Your task to perform on an android device: change timer sound Image 0: 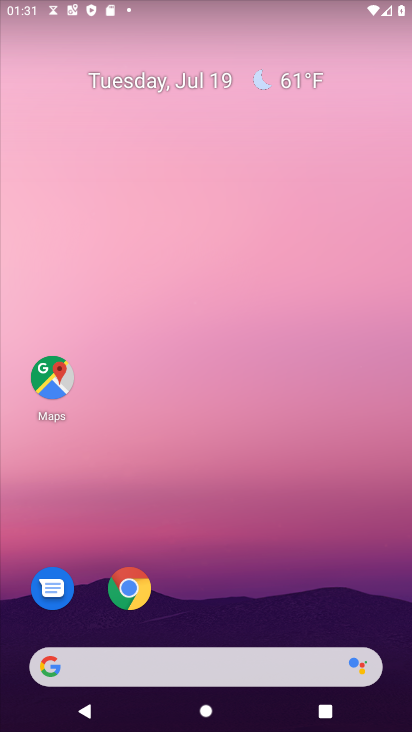
Step 0: press home button
Your task to perform on an android device: change timer sound Image 1: 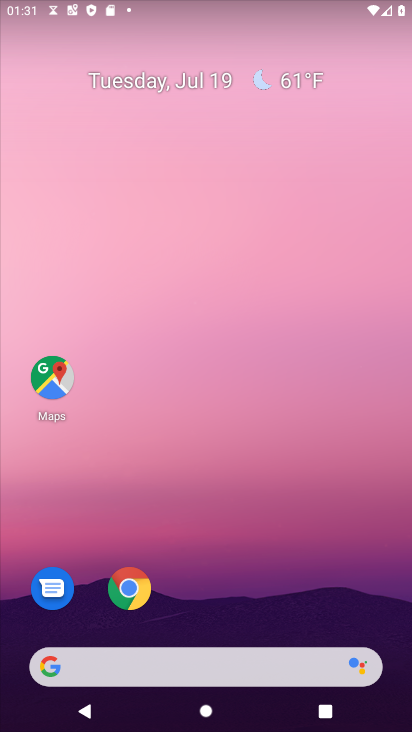
Step 1: drag from (299, 639) to (300, 0)
Your task to perform on an android device: change timer sound Image 2: 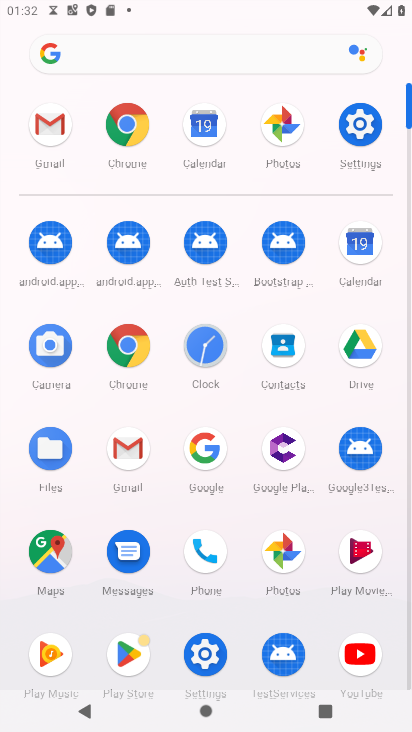
Step 2: click (205, 361)
Your task to perform on an android device: change timer sound Image 3: 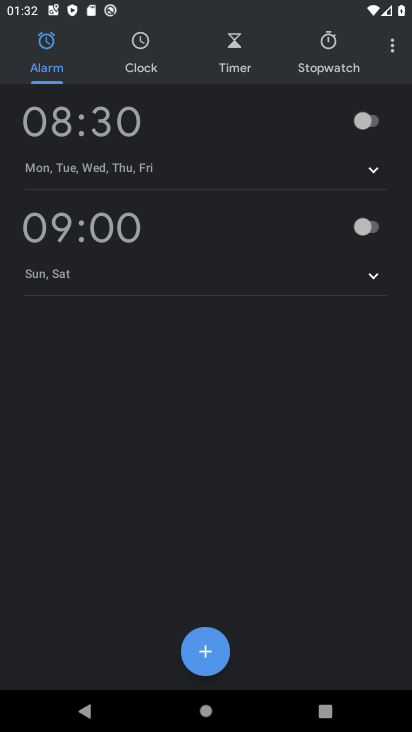
Step 3: click (390, 55)
Your task to perform on an android device: change timer sound Image 4: 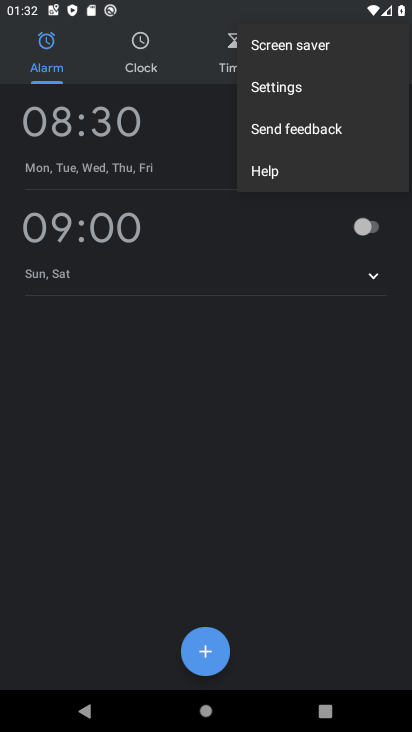
Step 4: click (269, 95)
Your task to perform on an android device: change timer sound Image 5: 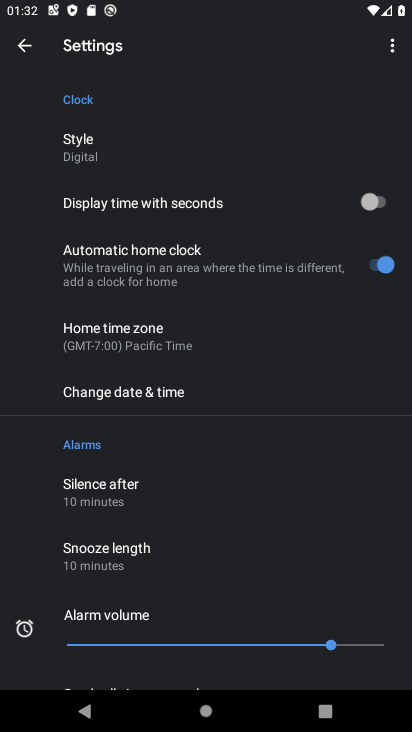
Step 5: drag from (162, 568) to (207, 272)
Your task to perform on an android device: change timer sound Image 6: 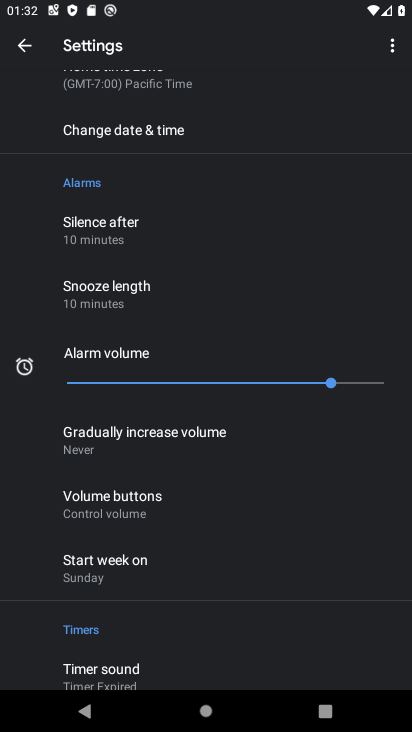
Step 6: click (142, 673)
Your task to perform on an android device: change timer sound Image 7: 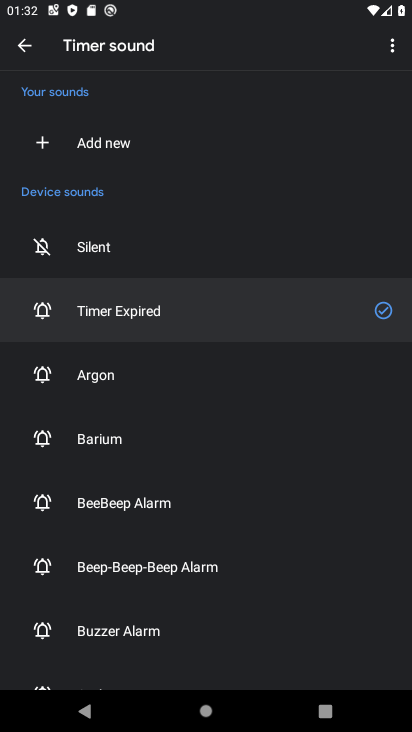
Step 7: click (101, 507)
Your task to perform on an android device: change timer sound Image 8: 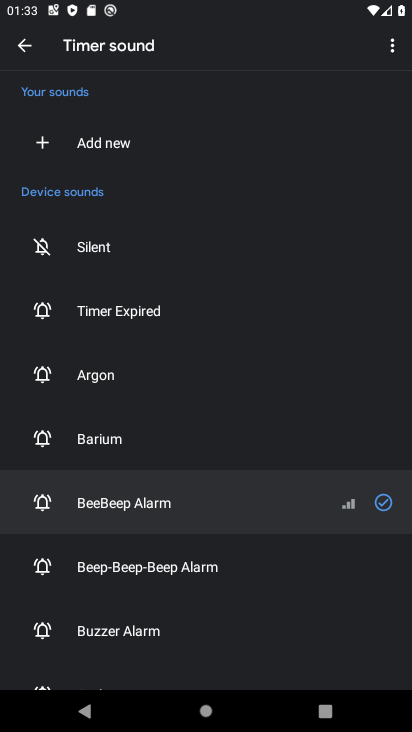
Step 8: task complete